Your task to perform on an android device: turn on location history Image 0: 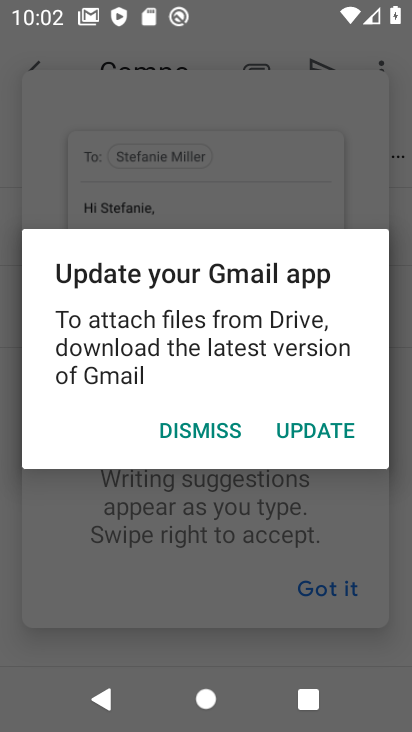
Step 0: press home button
Your task to perform on an android device: turn on location history Image 1: 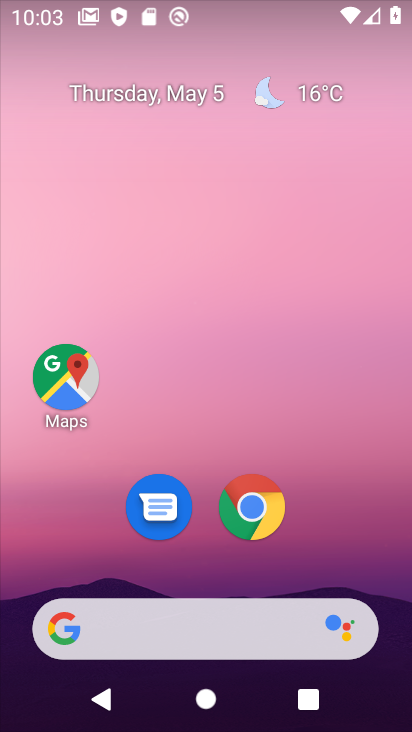
Step 1: drag from (182, 549) to (235, 255)
Your task to perform on an android device: turn on location history Image 2: 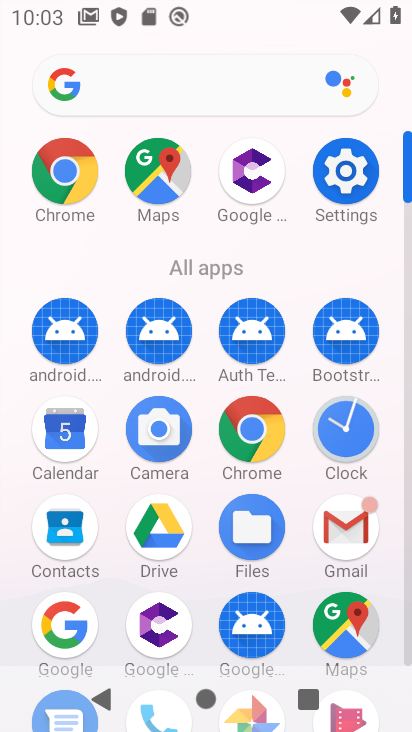
Step 2: click (339, 174)
Your task to perform on an android device: turn on location history Image 3: 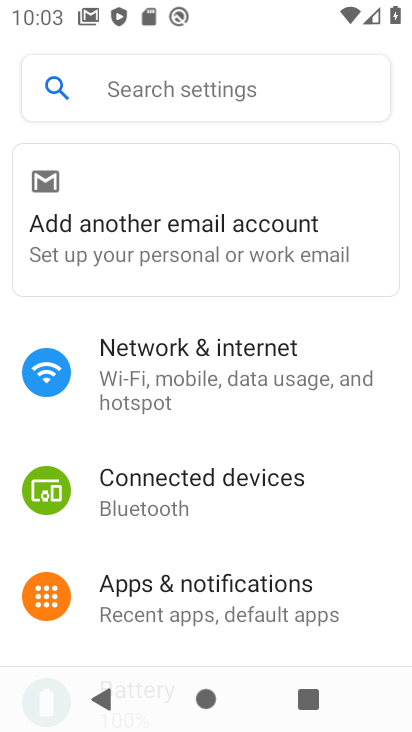
Step 3: drag from (200, 530) to (251, 249)
Your task to perform on an android device: turn on location history Image 4: 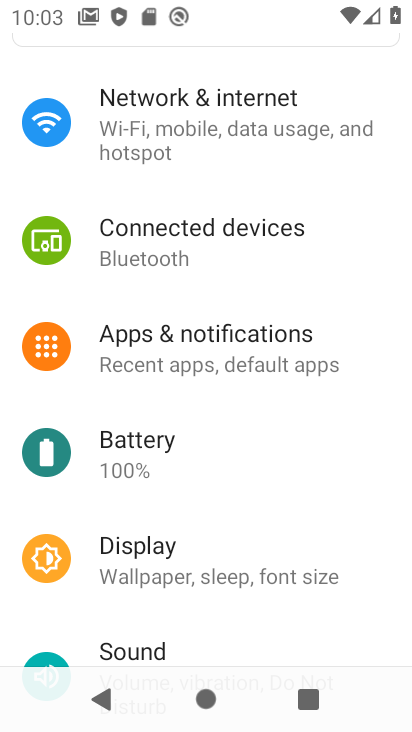
Step 4: drag from (206, 528) to (272, 193)
Your task to perform on an android device: turn on location history Image 5: 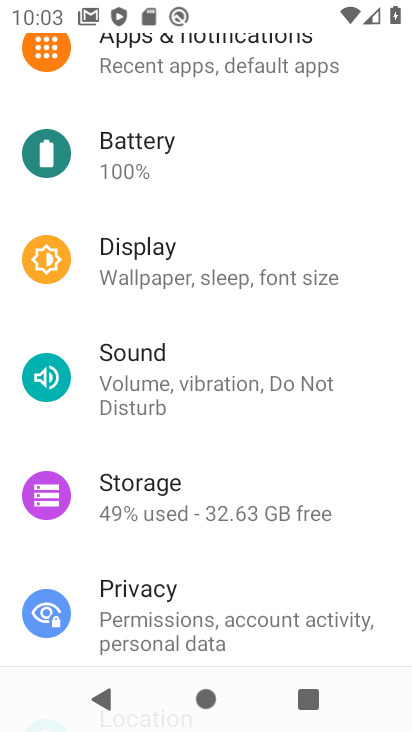
Step 5: drag from (156, 604) to (202, 373)
Your task to perform on an android device: turn on location history Image 6: 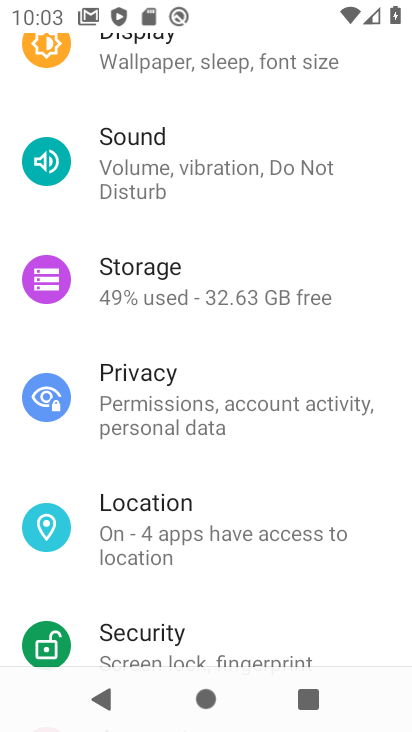
Step 6: click (198, 527)
Your task to perform on an android device: turn on location history Image 7: 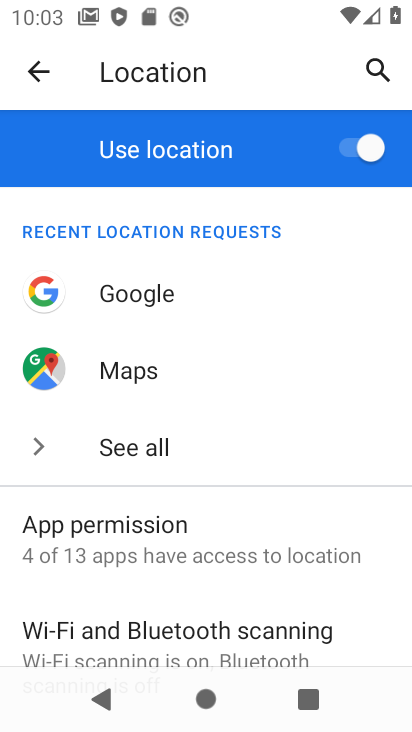
Step 7: drag from (154, 596) to (213, 225)
Your task to perform on an android device: turn on location history Image 8: 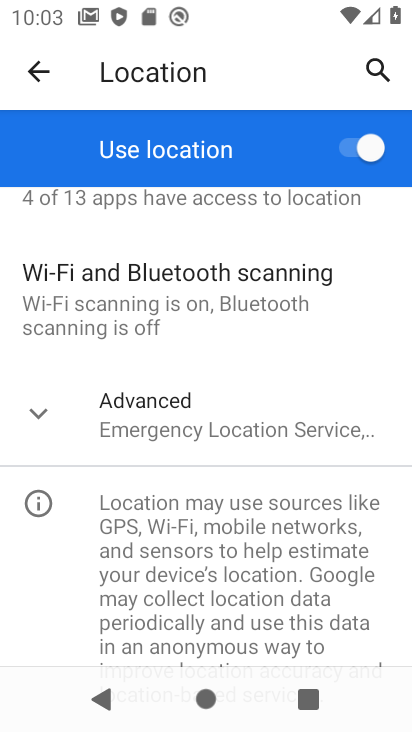
Step 8: click (183, 402)
Your task to perform on an android device: turn on location history Image 9: 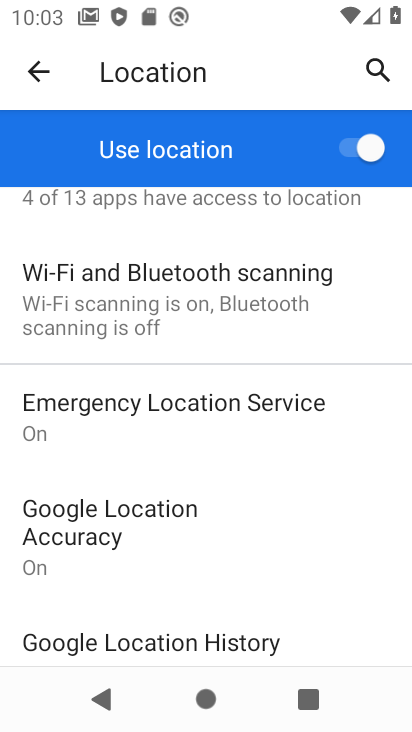
Step 9: click (182, 637)
Your task to perform on an android device: turn on location history Image 10: 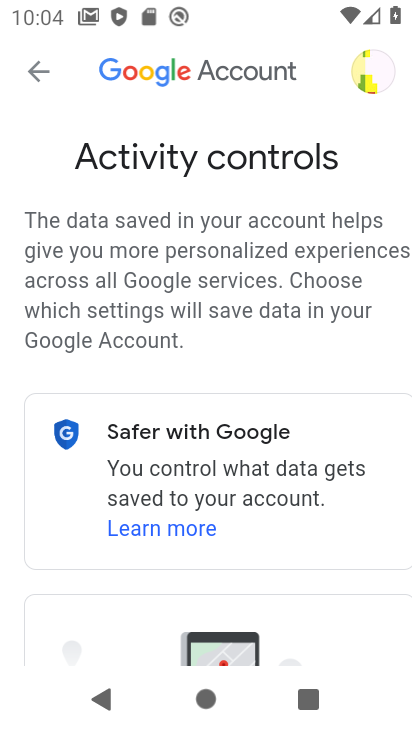
Step 10: task complete